Your task to perform on an android device: Show me the alarms in the clock app Image 0: 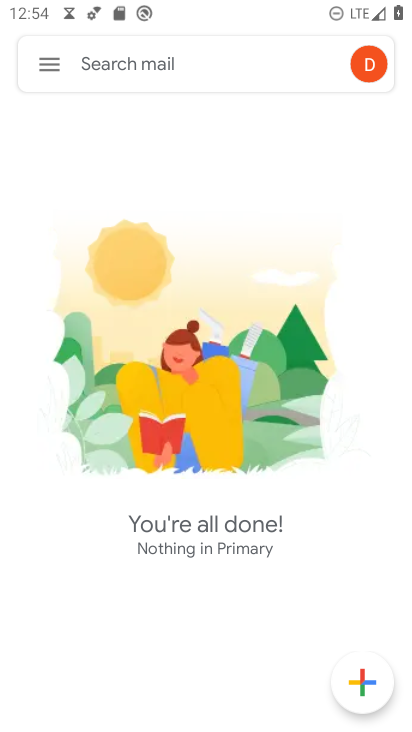
Step 0: click (47, 64)
Your task to perform on an android device: Show me the alarms in the clock app Image 1: 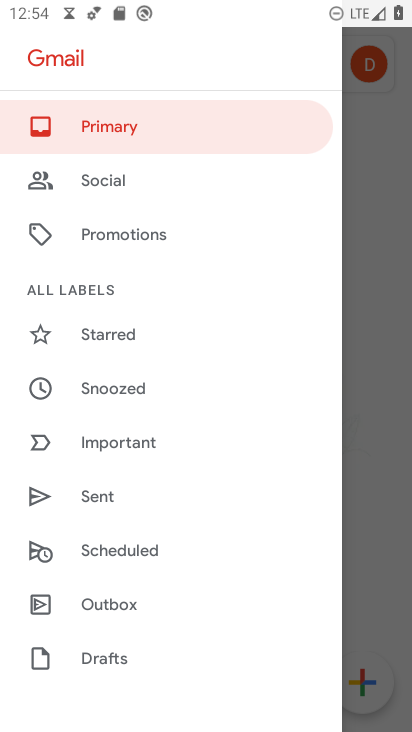
Step 1: press home button
Your task to perform on an android device: Show me the alarms in the clock app Image 2: 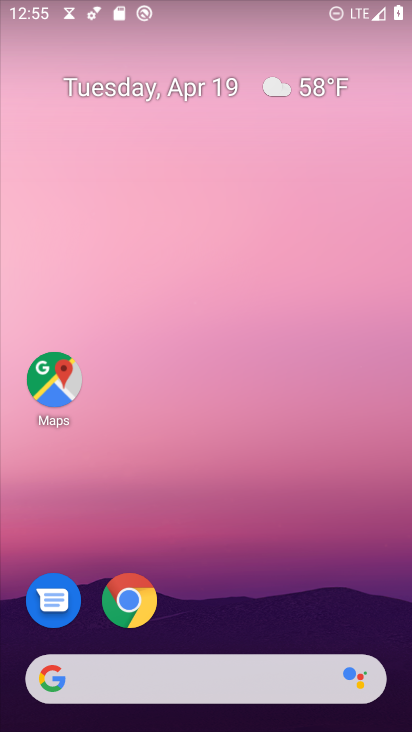
Step 2: drag from (283, 647) to (252, 74)
Your task to perform on an android device: Show me the alarms in the clock app Image 3: 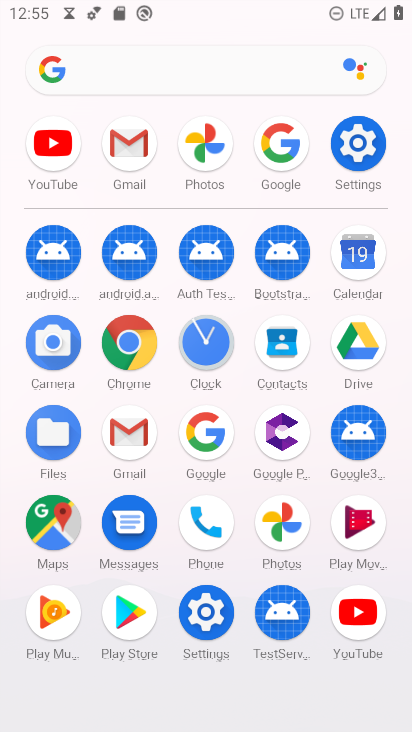
Step 3: click (207, 343)
Your task to perform on an android device: Show me the alarms in the clock app Image 4: 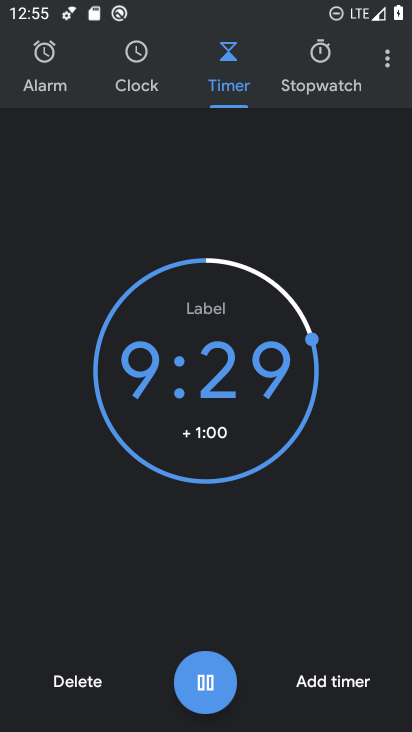
Step 4: click (54, 62)
Your task to perform on an android device: Show me the alarms in the clock app Image 5: 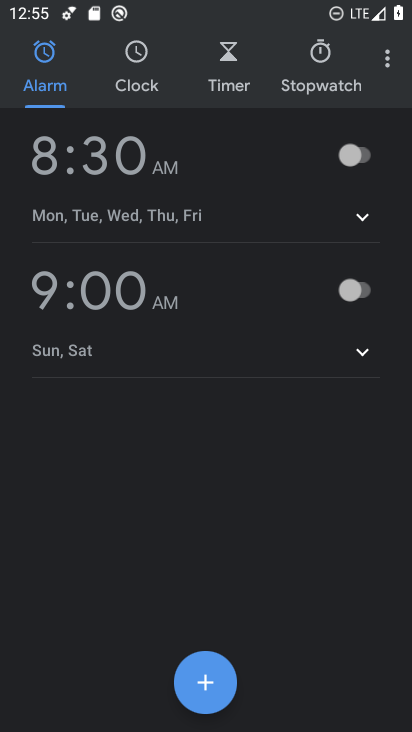
Step 5: task complete